Your task to perform on an android device: set the timer Image 0: 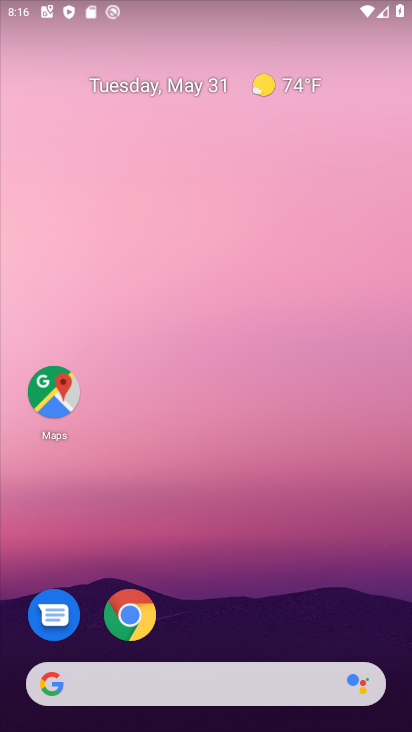
Step 0: drag from (183, 681) to (296, 87)
Your task to perform on an android device: set the timer Image 1: 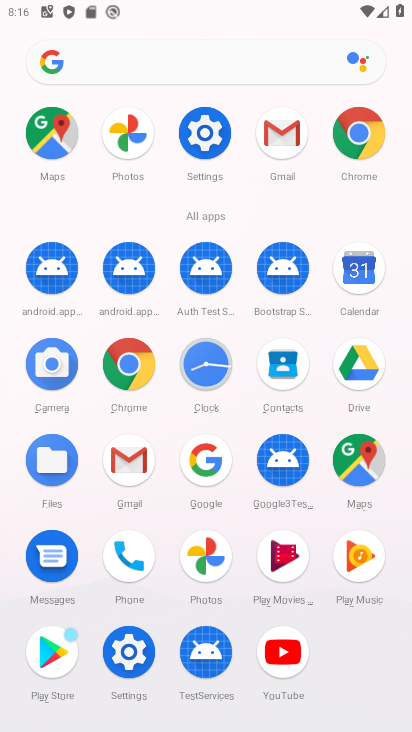
Step 1: click (204, 367)
Your task to perform on an android device: set the timer Image 2: 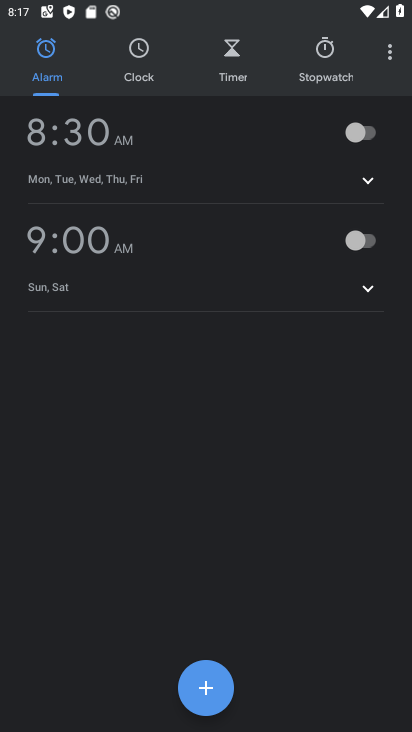
Step 2: click (219, 69)
Your task to perform on an android device: set the timer Image 3: 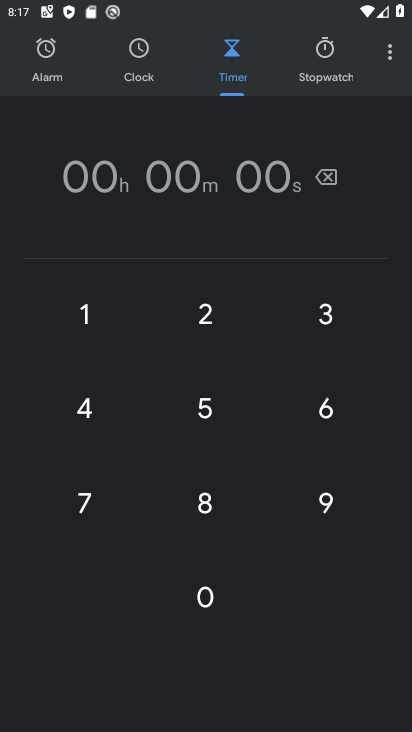
Step 3: click (205, 323)
Your task to perform on an android device: set the timer Image 4: 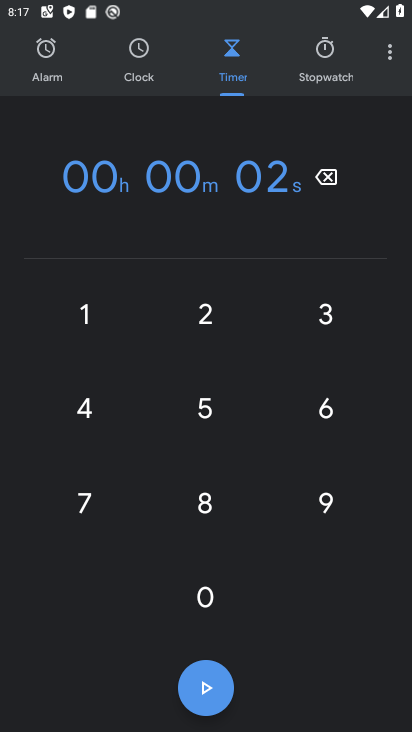
Step 4: click (205, 323)
Your task to perform on an android device: set the timer Image 5: 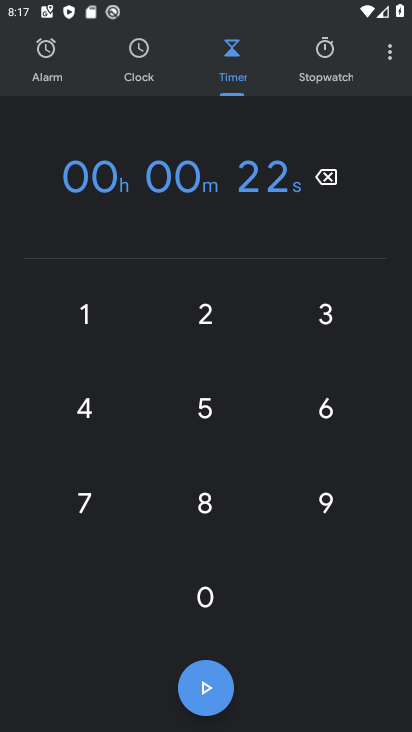
Step 5: click (205, 323)
Your task to perform on an android device: set the timer Image 6: 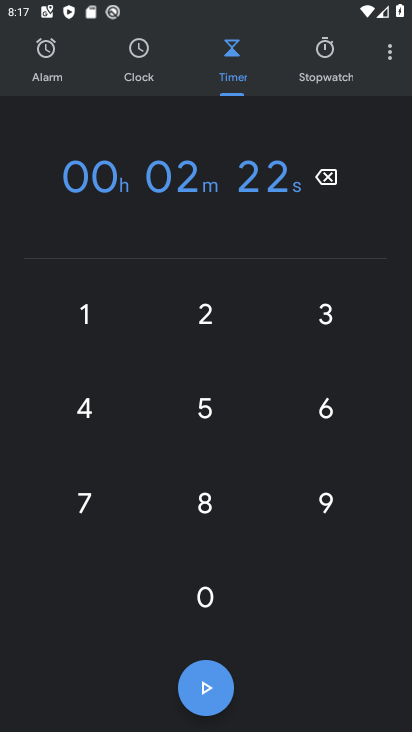
Step 6: click (203, 691)
Your task to perform on an android device: set the timer Image 7: 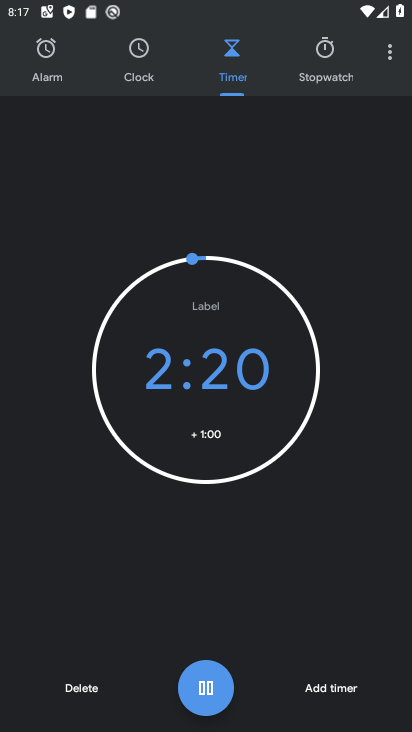
Step 7: click (199, 698)
Your task to perform on an android device: set the timer Image 8: 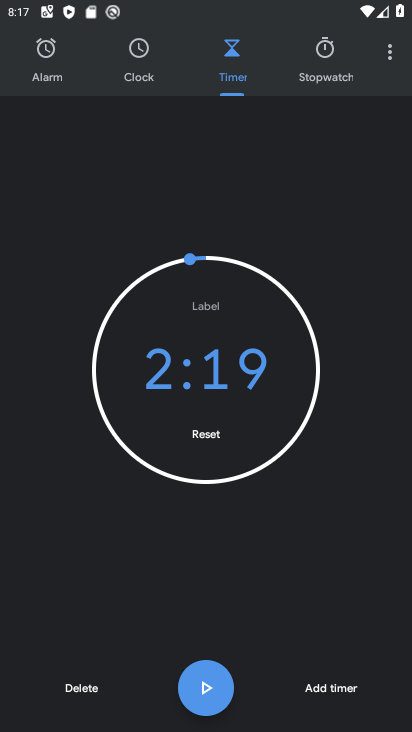
Step 8: task complete